Your task to perform on an android device: search for starred emails in the gmail app Image 0: 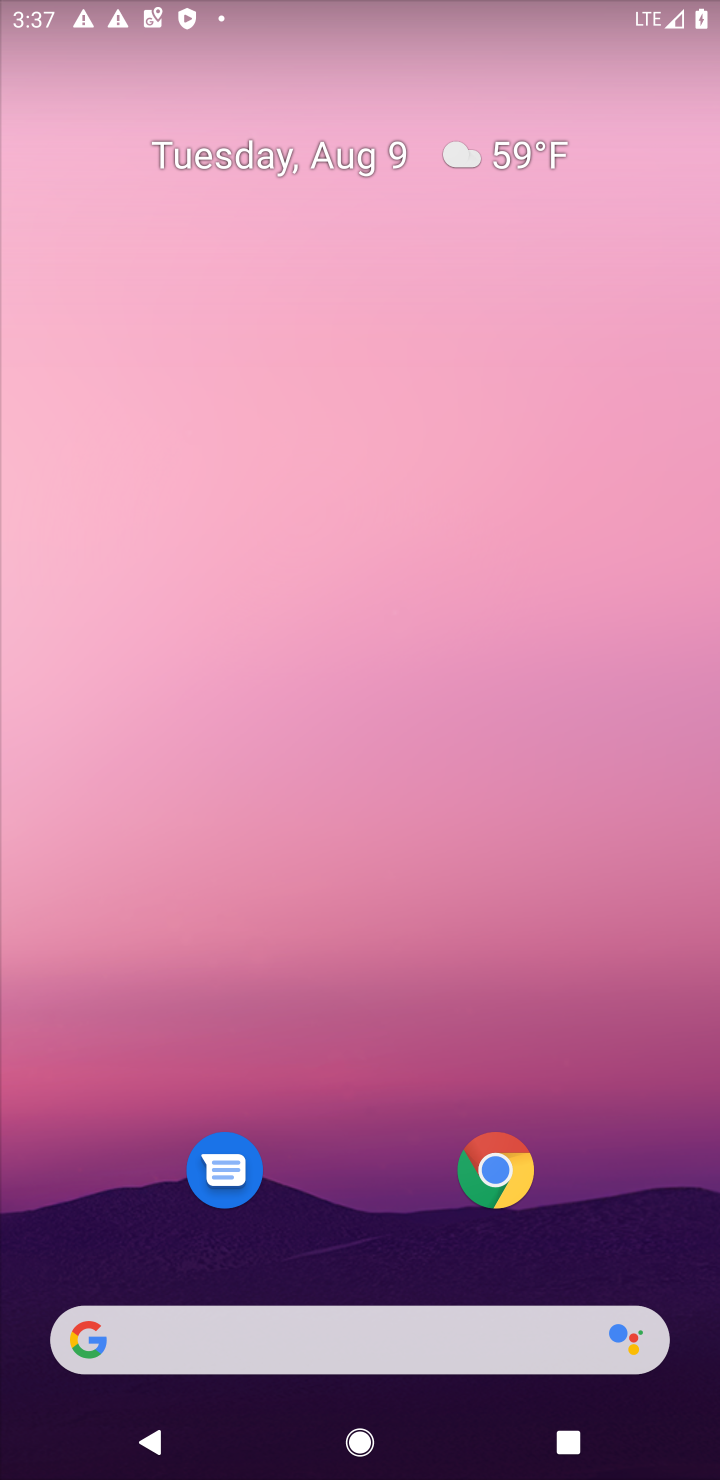
Step 0: press home button
Your task to perform on an android device: search for starred emails in the gmail app Image 1: 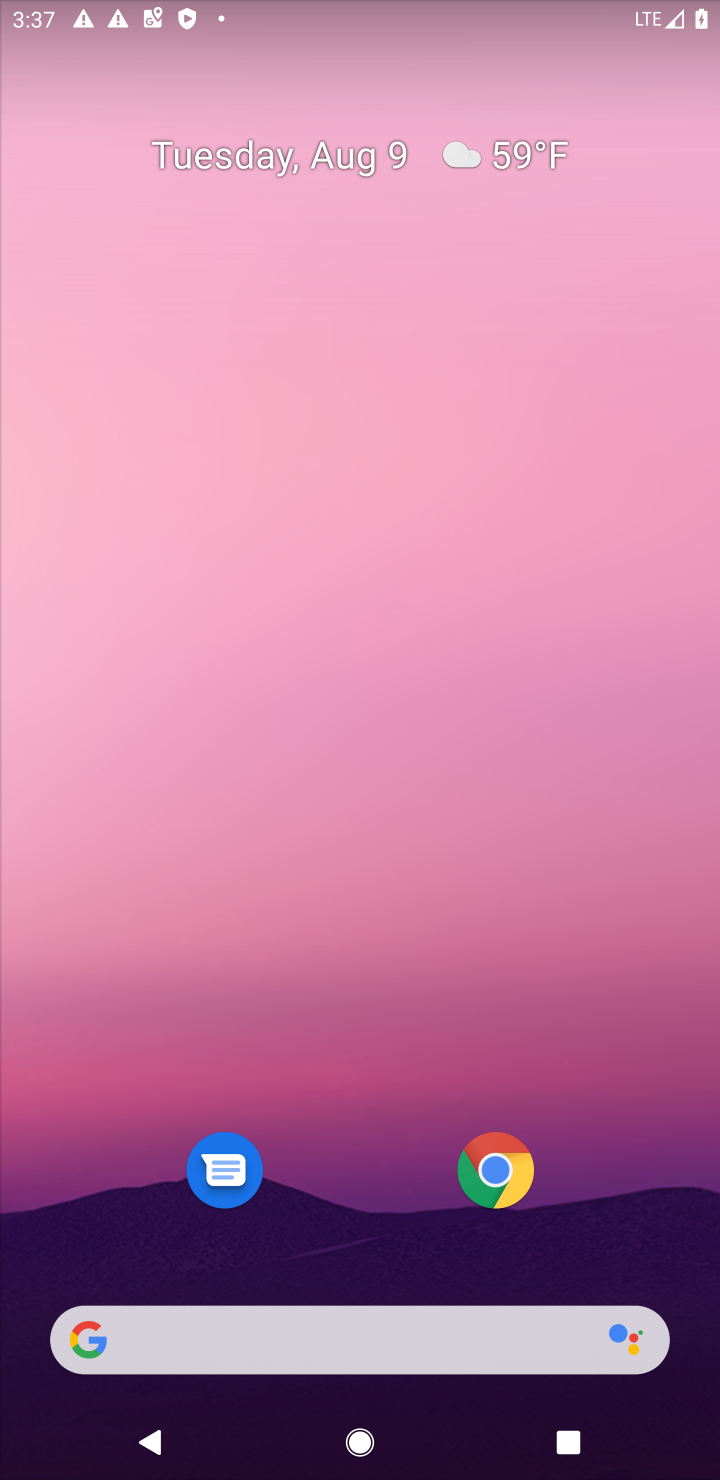
Step 1: drag from (326, 912) to (310, 25)
Your task to perform on an android device: search for starred emails in the gmail app Image 2: 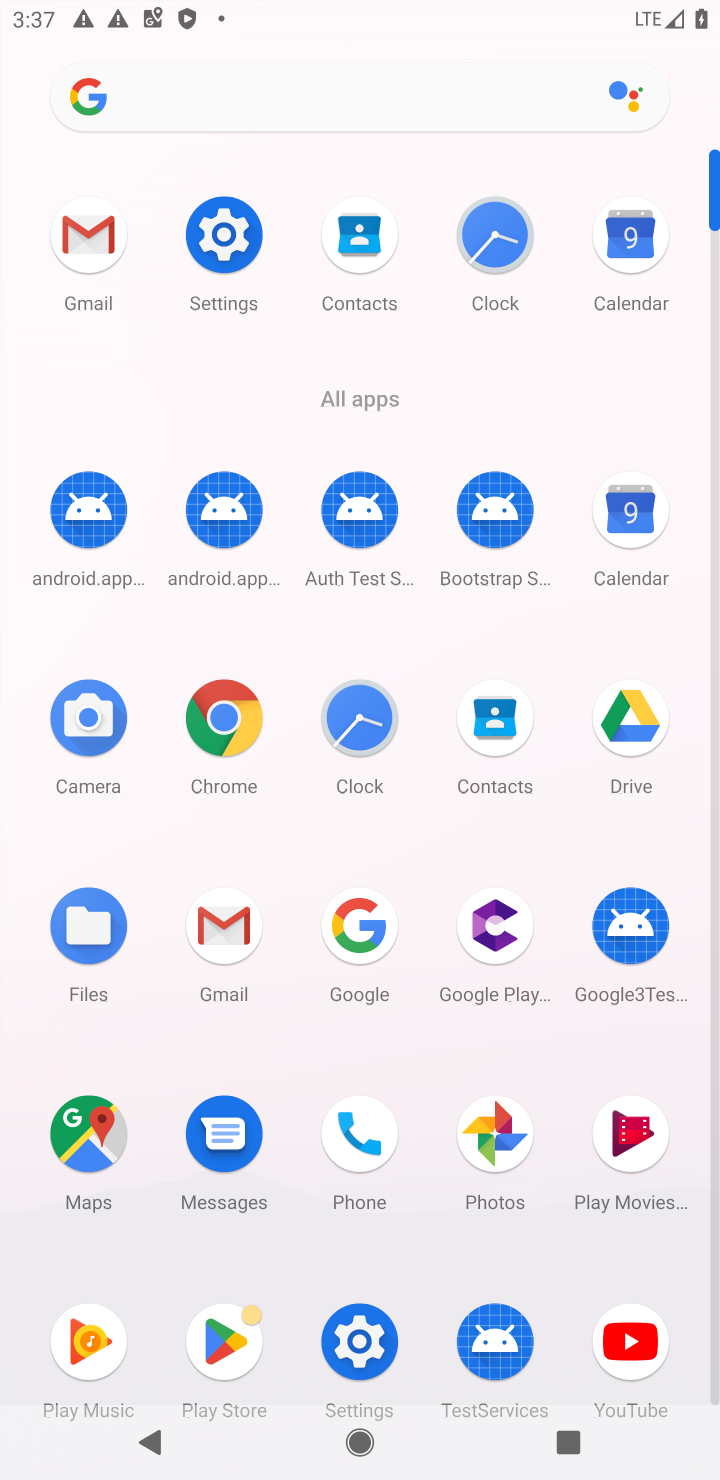
Step 2: click (92, 242)
Your task to perform on an android device: search for starred emails in the gmail app Image 3: 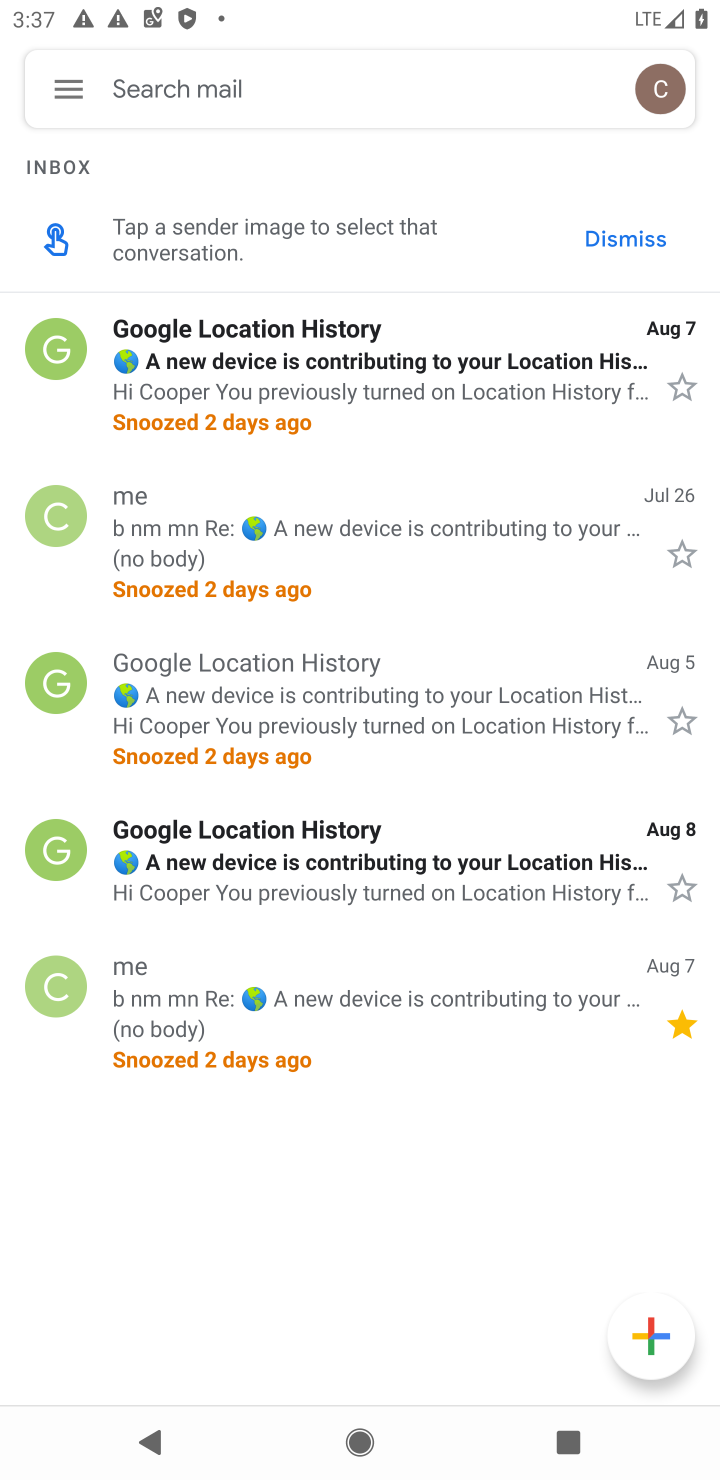
Step 3: click (61, 93)
Your task to perform on an android device: search for starred emails in the gmail app Image 4: 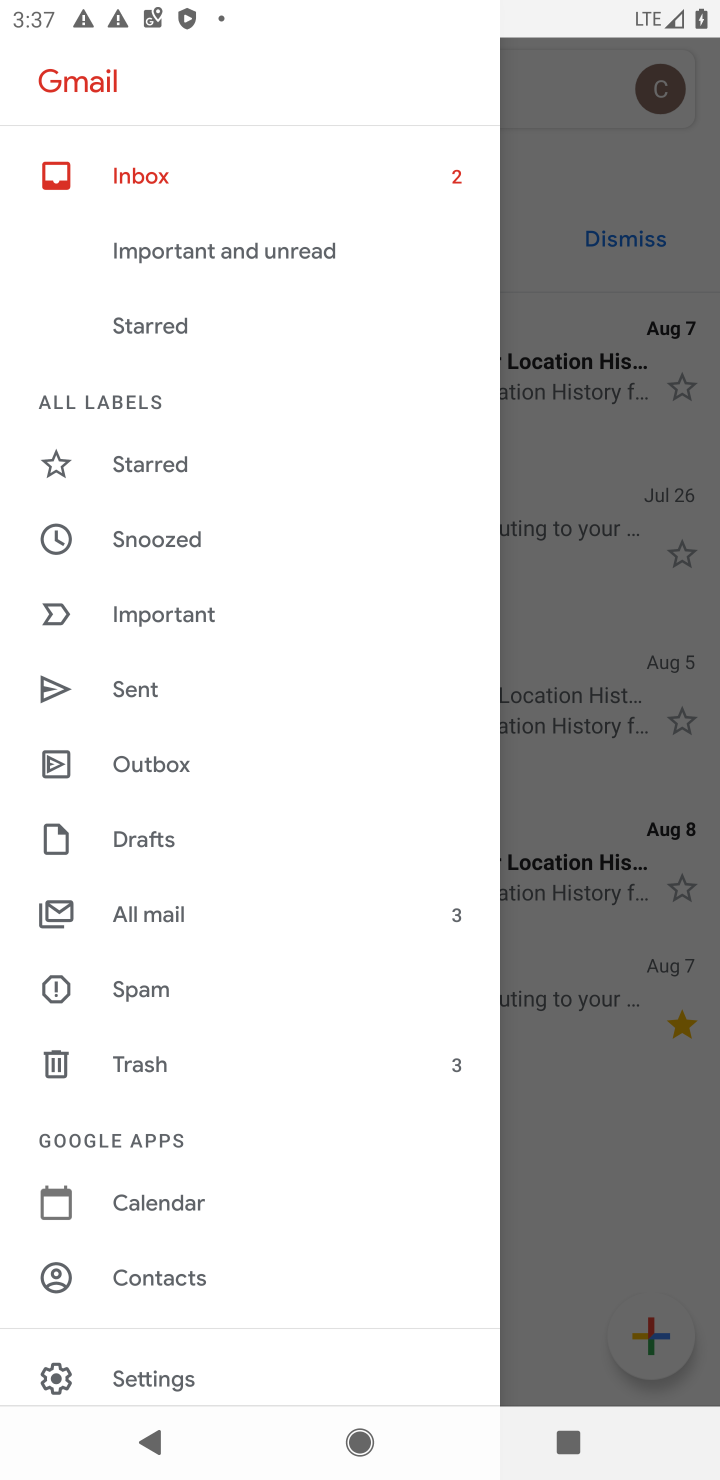
Step 4: click (153, 468)
Your task to perform on an android device: search for starred emails in the gmail app Image 5: 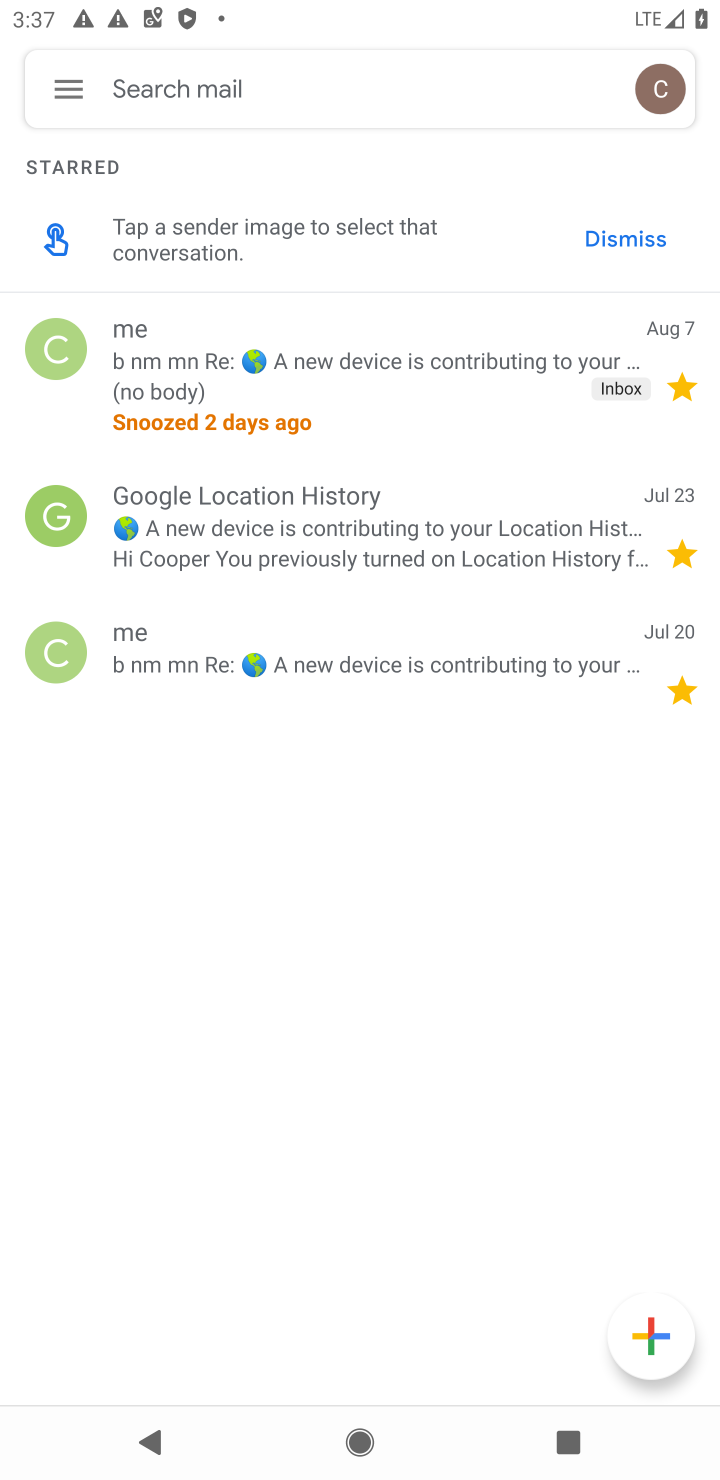
Step 5: task complete